Your task to perform on an android device: Add "apple airpods pro" to the cart on costco.com Image 0: 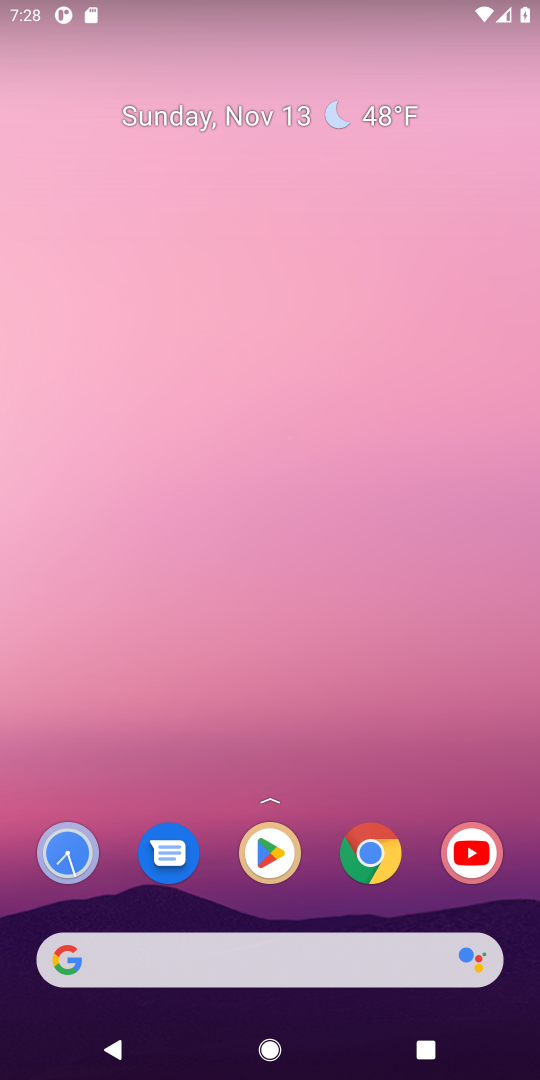
Step 0: press home button
Your task to perform on an android device: Add "apple airpods pro" to the cart on costco.com Image 1: 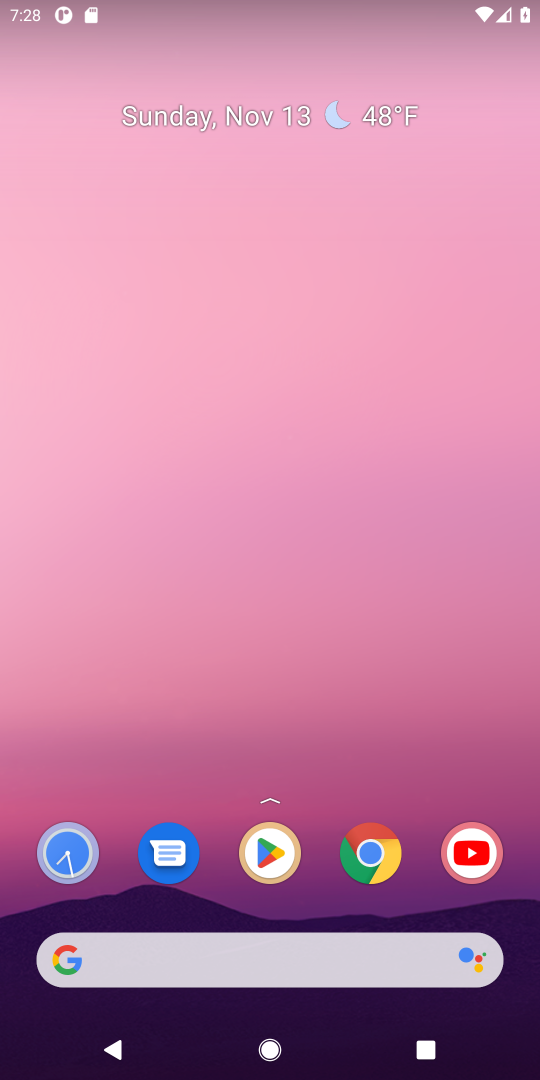
Step 1: click (107, 950)
Your task to perform on an android device: Add "apple airpods pro" to the cart on costco.com Image 2: 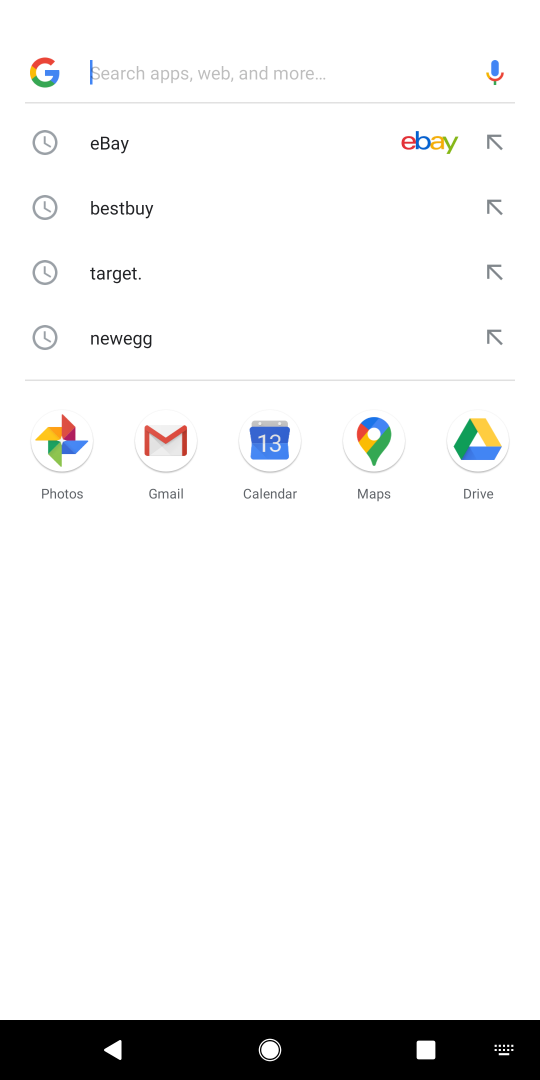
Step 2: press enter
Your task to perform on an android device: Add "apple airpods pro" to the cart on costco.com Image 3: 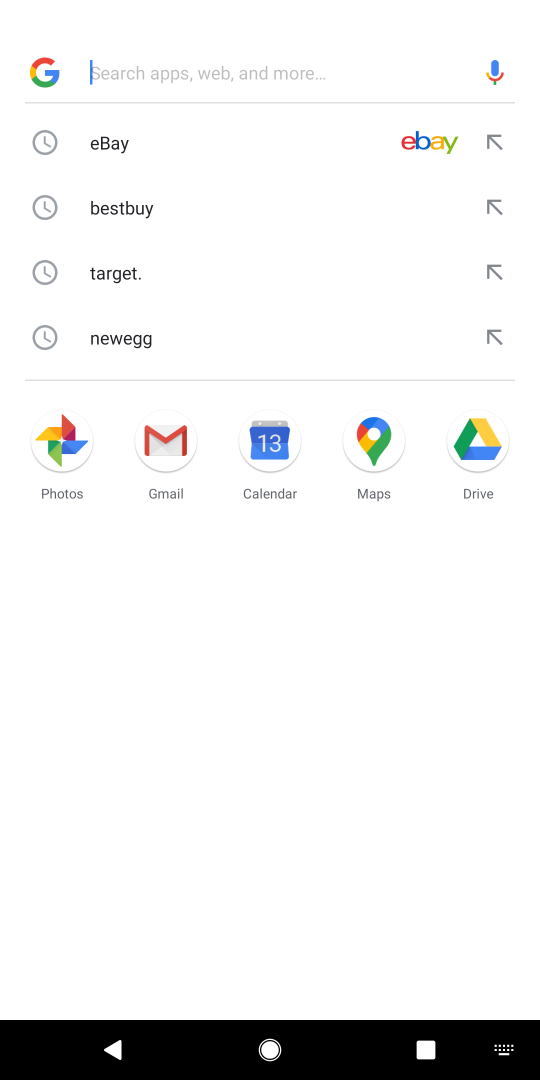
Step 3: type "costco.com"
Your task to perform on an android device: Add "apple airpods pro" to the cart on costco.com Image 4: 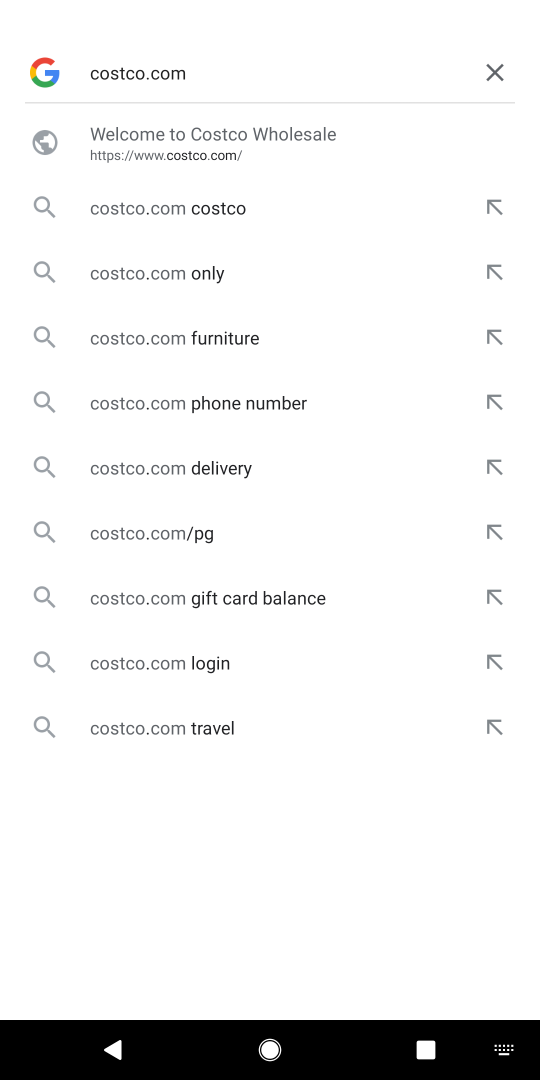
Step 4: press enter
Your task to perform on an android device: Add "apple airpods pro" to the cart on costco.com Image 5: 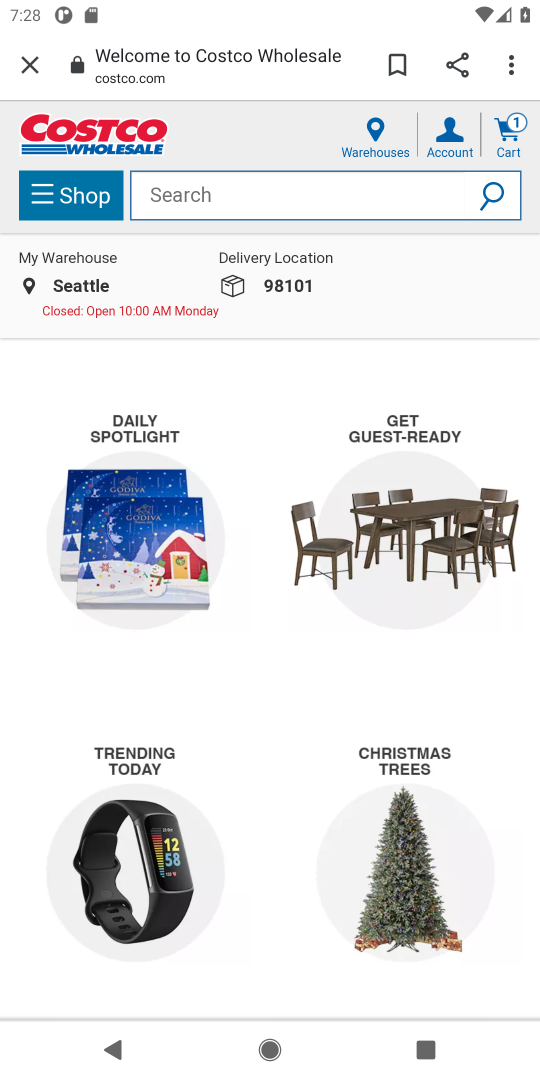
Step 5: click (161, 192)
Your task to perform on an android device: Add "apple airpods pro" to the cart on costco.com Image 6: 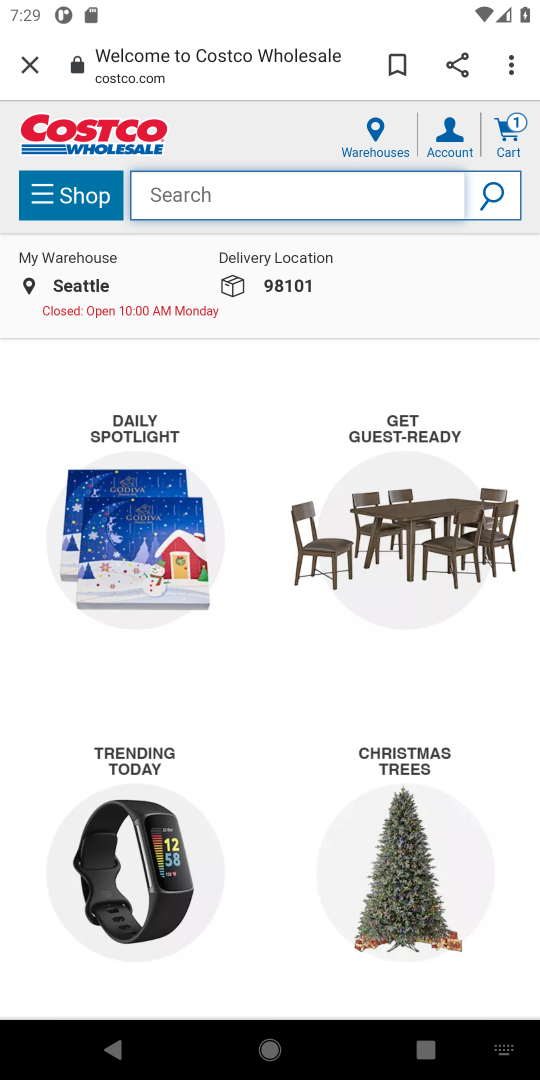
Step 6: type "apple airpods pro"
Your task to perform on an android device: Add "apple airpods pro" to the cart on costco.com Image 7: 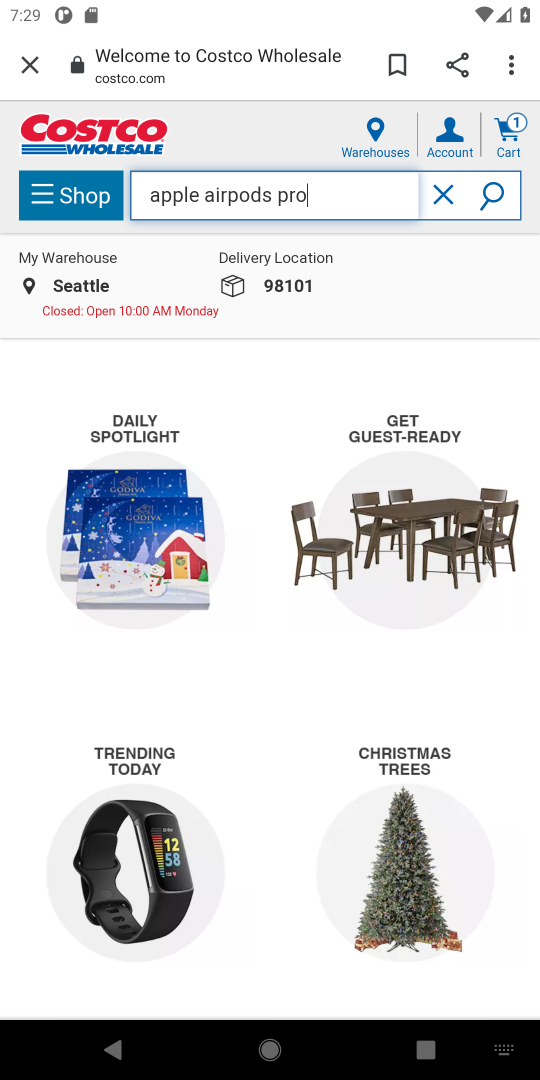
Step 7: press enter
Your task to perform on an android device: Add "apple airpods pro" to the cart on costco.com Image 8: 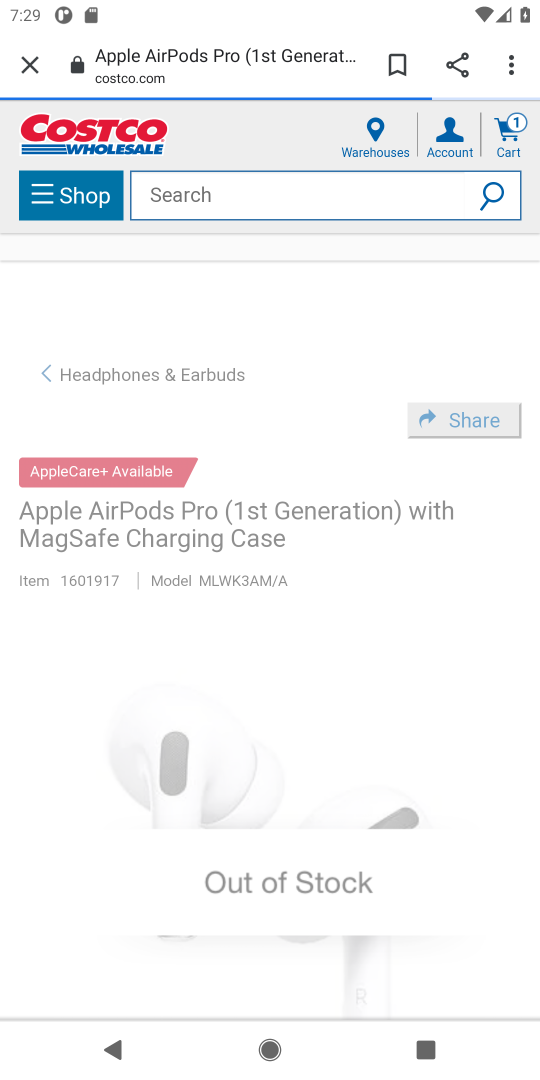
Step 8: task complete